Your task to perform on an android device: make emails show in primary in the gmail app Image 0: 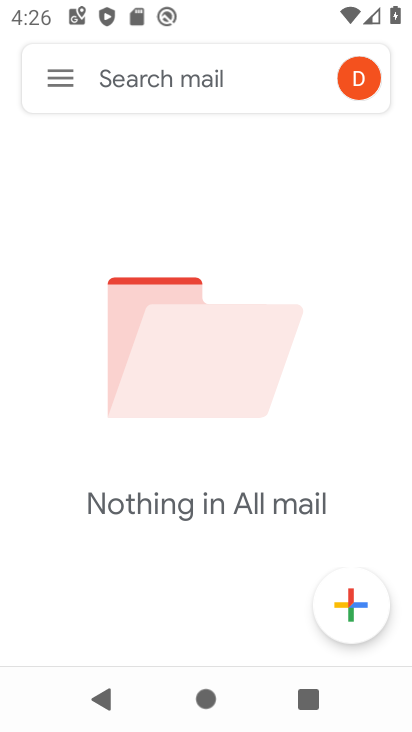
Step 0: click (58, 80)
Your task to perform on an android device: make emails show in primary in the gmail app Image 1: 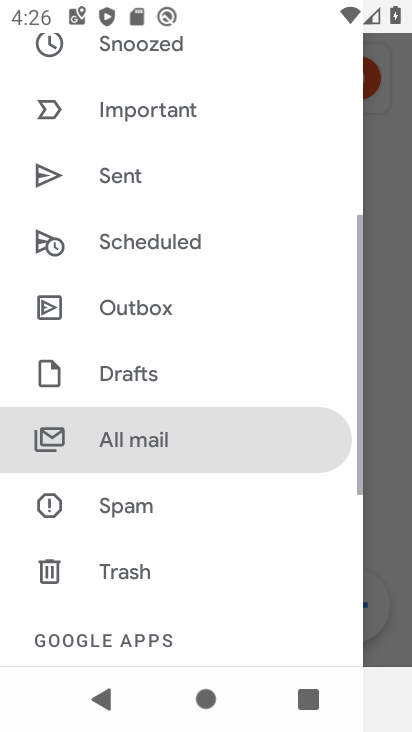
Step 1: drag from (127, 574) to (134, 201)
Your task to perform on an android device: make emails show in primary in the gmail app Image 2: 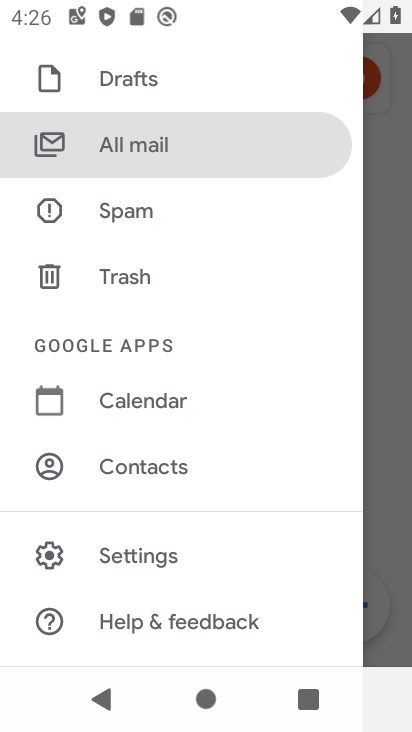
Step 2: click (191, 544)
Your task to perform on an android device: make emails show in primary in the gmail app Image 3: 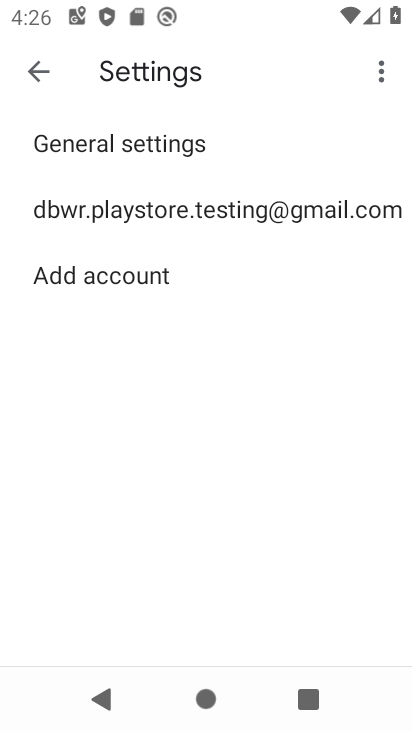
Step 3: click (302, 206)
Your task to perform on an android device: make emails show in primary in the gmail app Image 4: 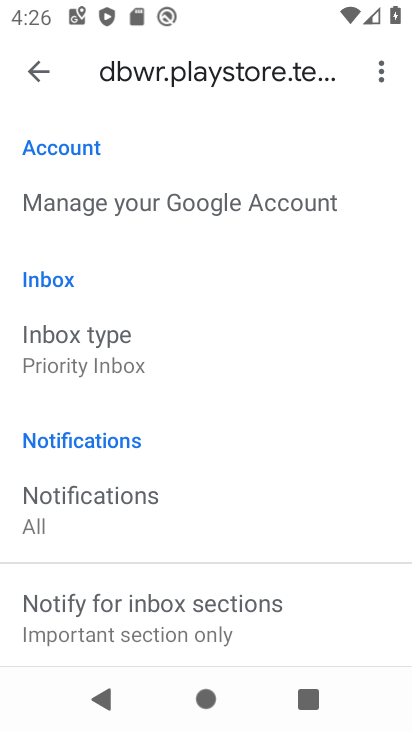
Step 4: click (99, 365)
Your task to perform on an android device: make emails show in primary in the gmail app Image 5: 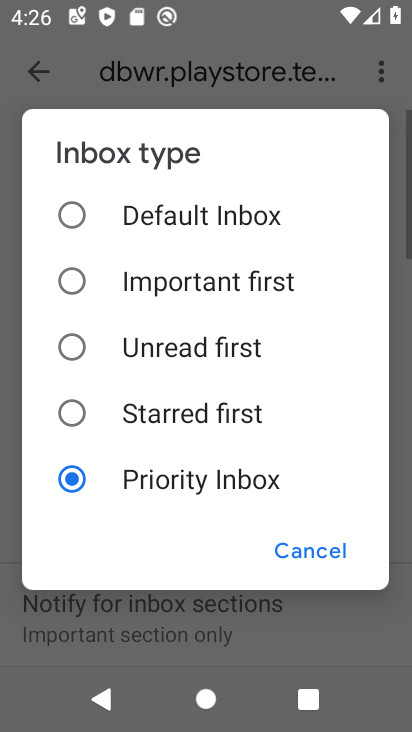
Step 5: click (163, 220)
Your task to perform on an android device: make emails show in primary in the gmail app Image 6: 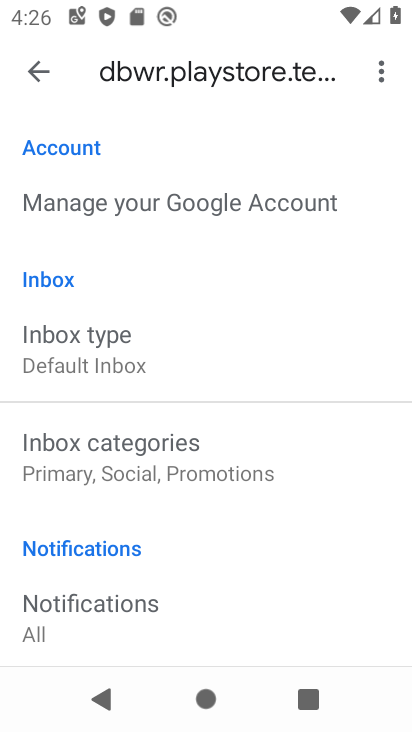
Step 6: task complete